Your task to perform on an android device: Open the web browser Image 0: 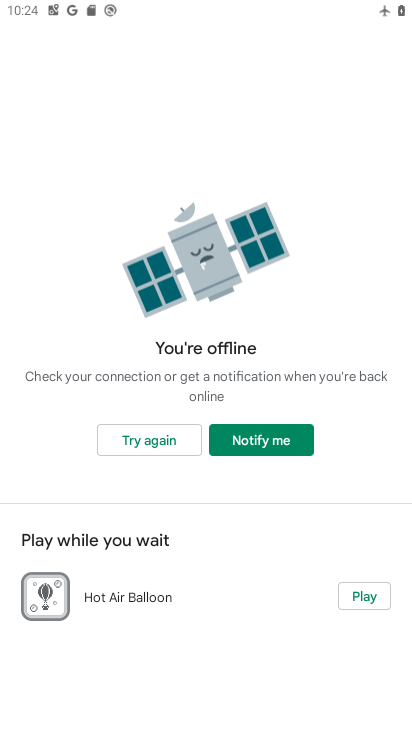
Step 0: press home button
Your task to perform on an android device: Open the web browser Image 1: 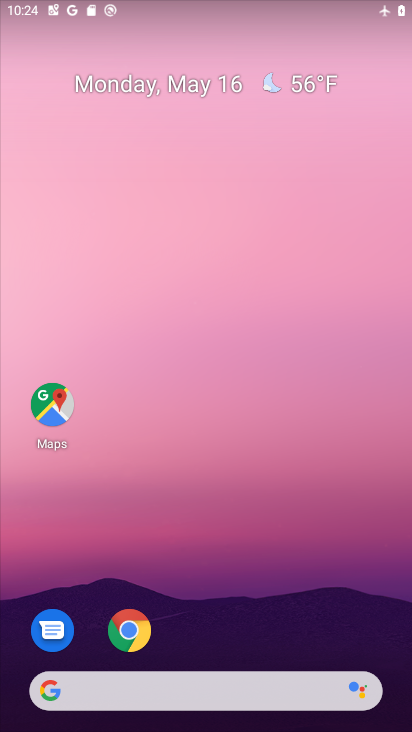
Step 1: click (131, 633)
Your task to perform on an android device: Open the web browser Image 2: 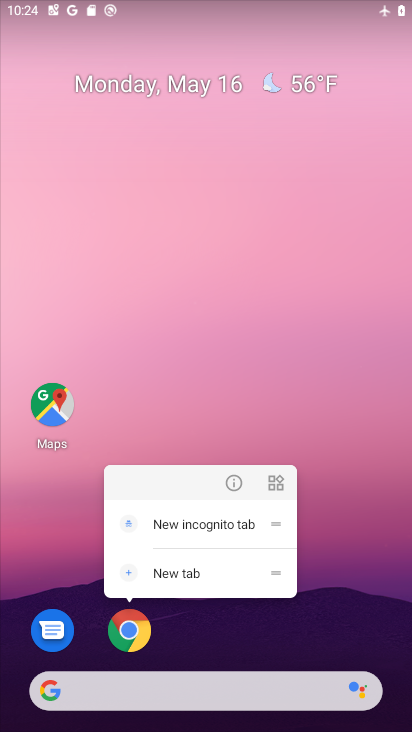
Step 2: click (131, 627)
Your task to perform on an android device: Open the web browser Image 3: 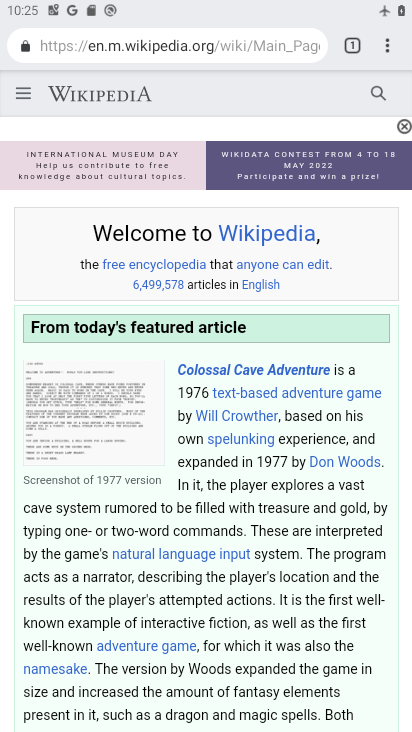
Step 3: task complete